Your task to perform on an android device: open a bookmark in the chrome app Image 0: 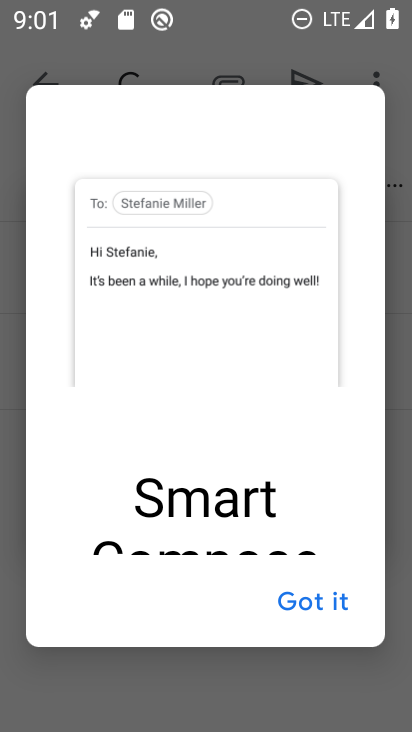
Step 0: press home button
Your task to perform on an android device: open a bookmark in the chrome app Image 1: 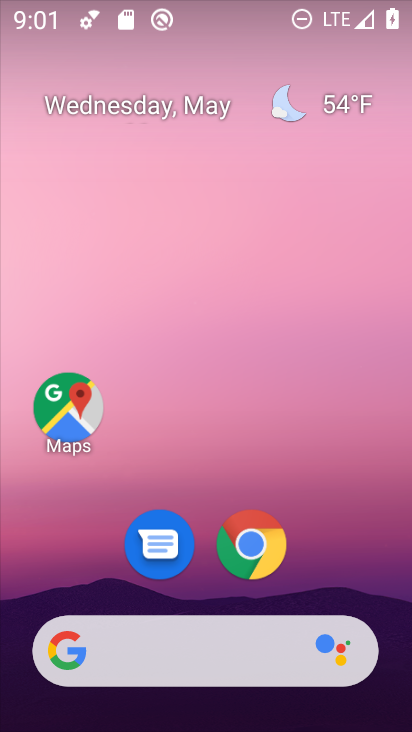
Step 1: click (242, 539)
Your task to perform on an android device: open a bookmark in the chrome app Image 2: 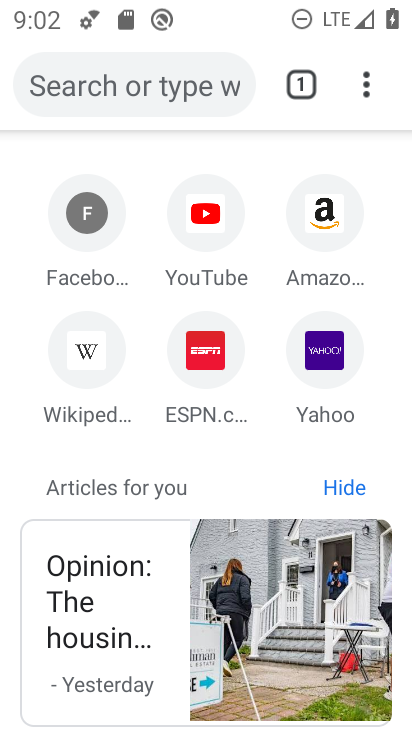
Step 2: click (376, 100)
Your task to perform on an android device: open a bookmark in the chrome app Image 3: 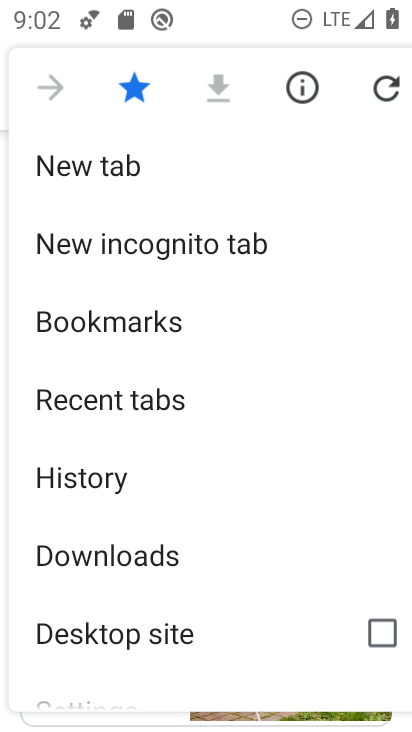
Step 3: click (165, 336)
Your task to perform on an android device: open a bookmark in the chrome app Image 4: 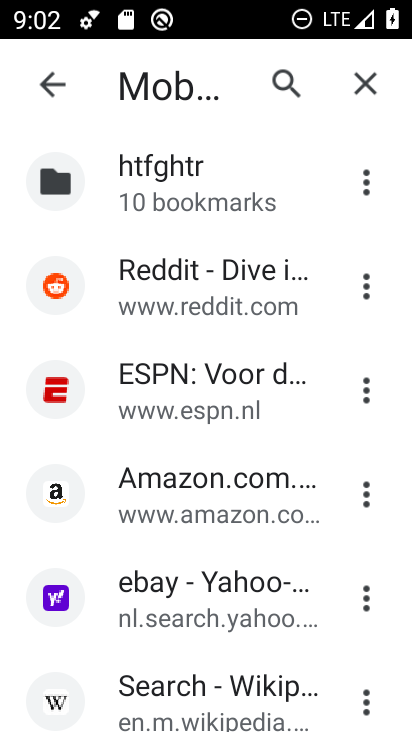
Step 4: click (211, 619)
Your task to perform on an android device: open a bookmark in the chrome app Image 5: 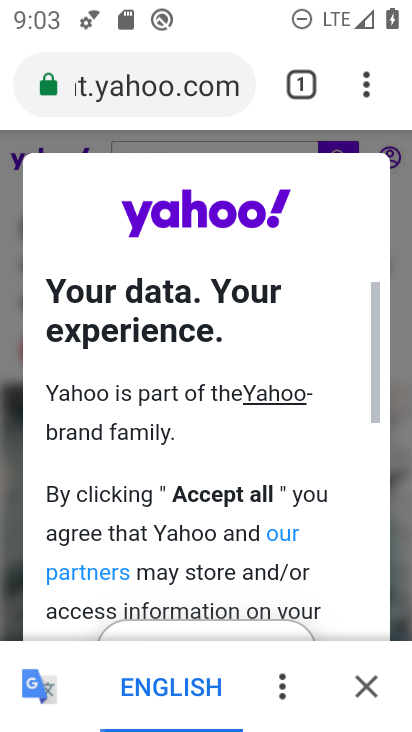
Step 5: task complete